Your task to perform on an android device: create a new album in the google photos Image 0: 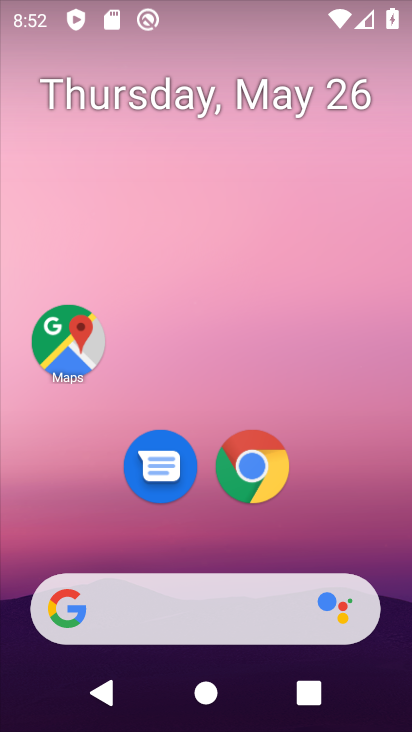
Step 0: drag from (340, 535) to (207, 67)
Your task to perform on an android device: create a new album in the google photos Image 1: 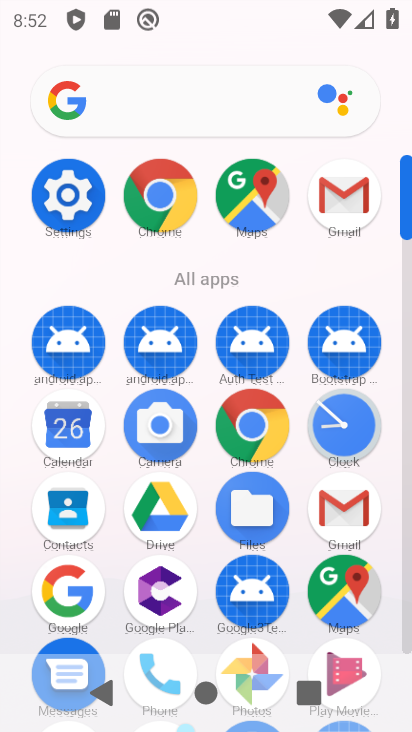
Step 1: drag from (203, 564) to (174, 289)
Your task to perform on an android device: create a new album in the google photos Image 2: 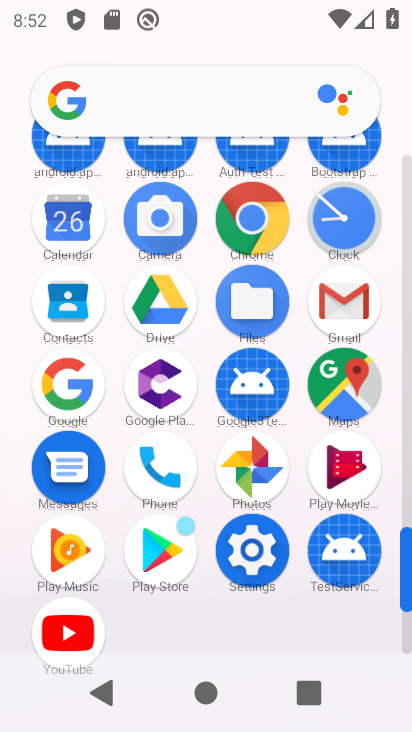
Step 2: click (252, 479)
Your task to perform on an android device: create a new album in the google photos Image 3: 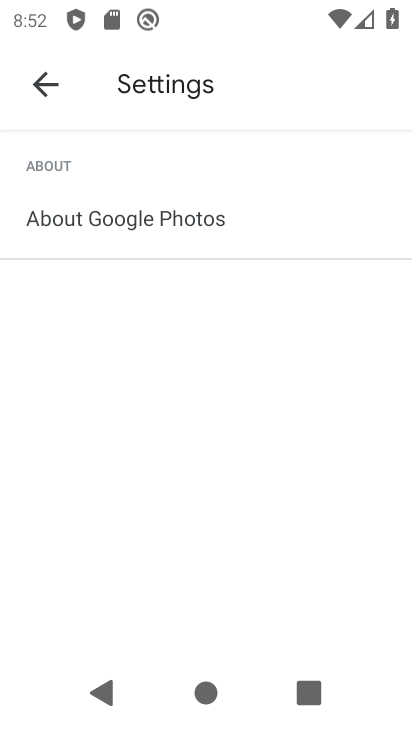
Step 3: click (38, 78)
Your task to perform on an android device: create a new album in the google photos Image 4: 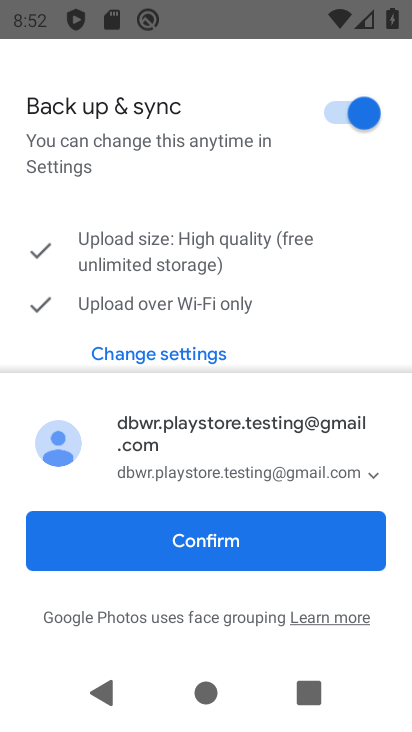
Step 4: click (205, 550)
Your task to perform on an android device: create a new album in the google photos Image 5: 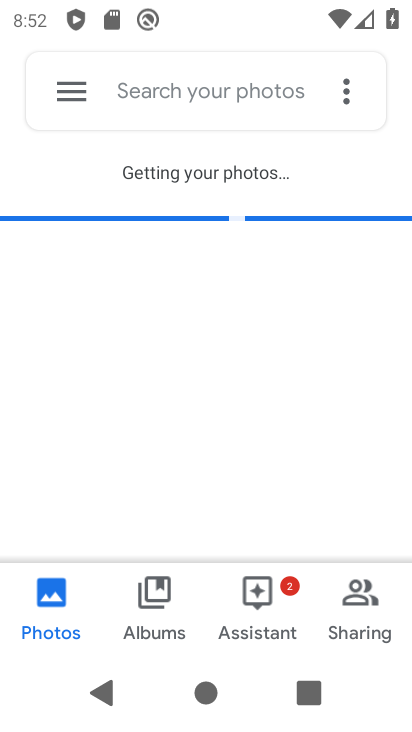
Step 5: click (344, 85)
Your task to perform on an android device: create a new album in the google photos Image 6: 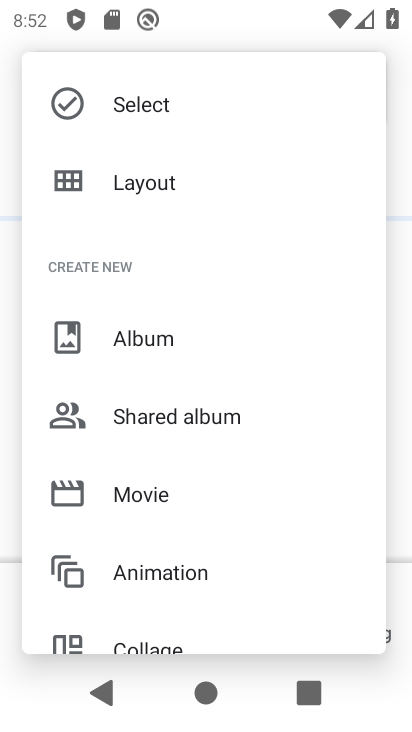
Step 6: click (155, 336)
Your task to perform on an android device: create a new album in the google photos Image 7: 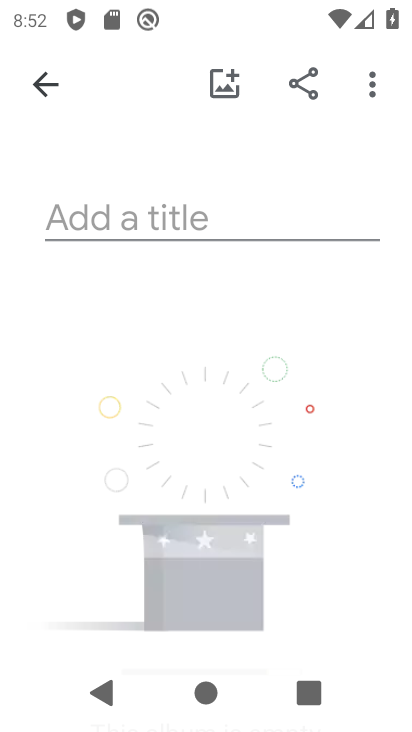
Step 7: click (174, 219)
Your task to perform on an android device: create a new album in the google photos Image 8: 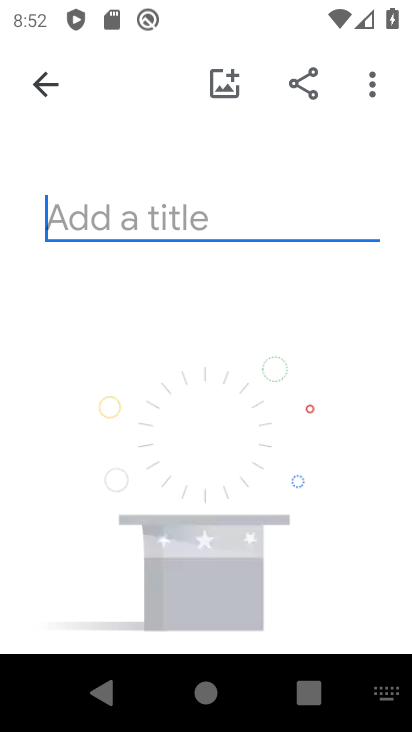
Step 8: type "[[[[["
Your task to perform on an android device: create a new album in the google photos Image 9: 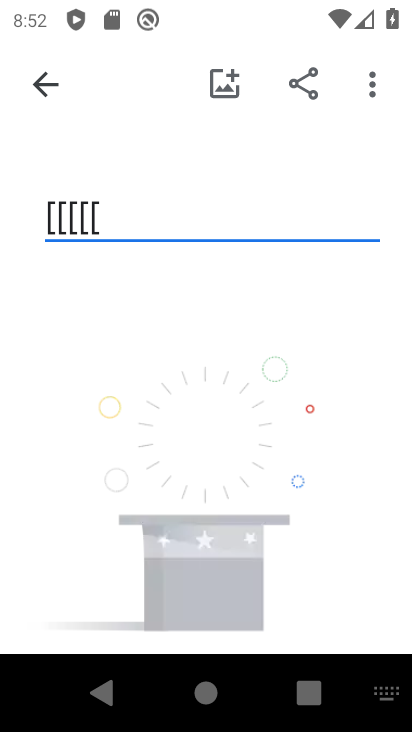
Step 9: drag from (319, 494) to (300, 190)
Your task to perform on an android device: create a new album in the google photos Image 10: 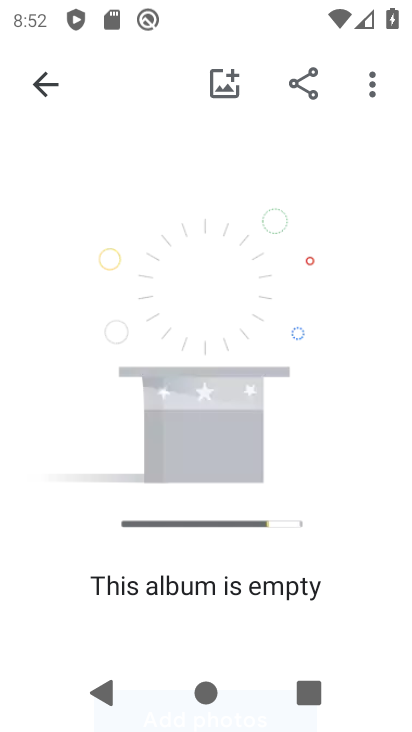
Step 10: click (227, 69)
Your task to perform on an android device: create a new album in the google photos Image 11: 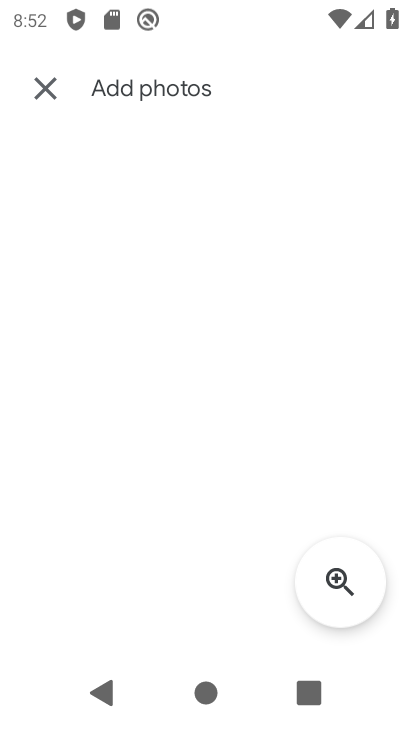
Step 11: drag from (199, 461) to (147, 221)
Your task to perform on an android device: create a new album in the google photos Image 12: 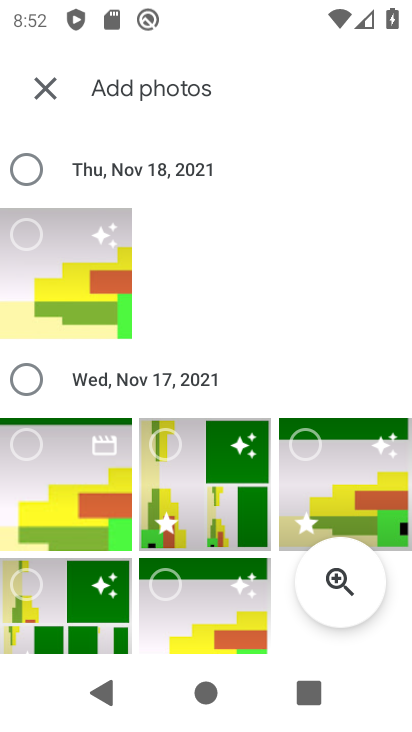
Step 12: click (24, 239)
Your task to perform on an android device: create a new album in the google photos Image 13: 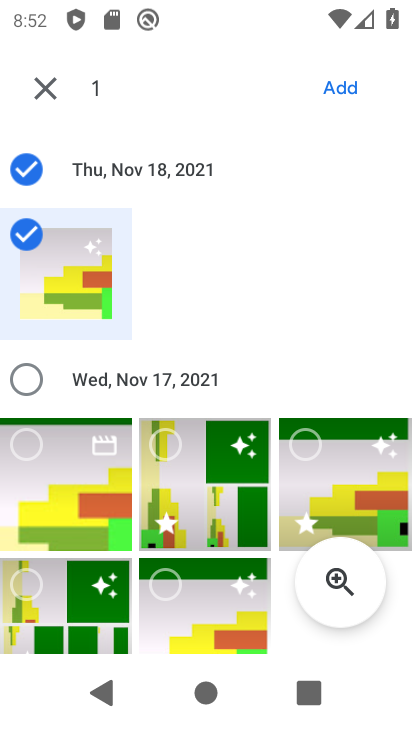
Step 13: click (357, 84)
Your task to perform on an android device: create a new album in the google photos Image 14: 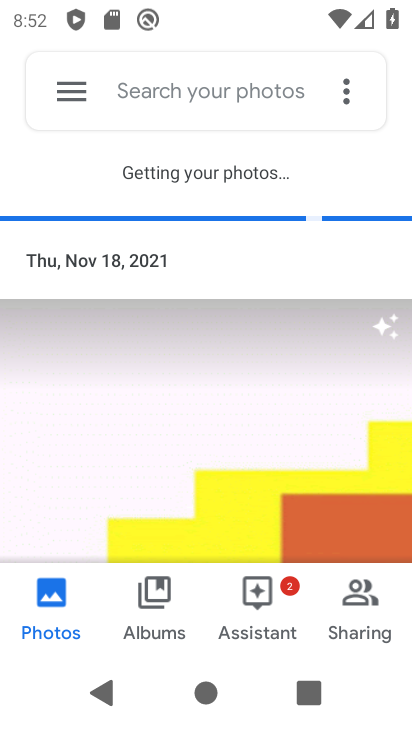
Step 14: task complete